Your task to perform on an android device: Go to Reddit.com Image 0: 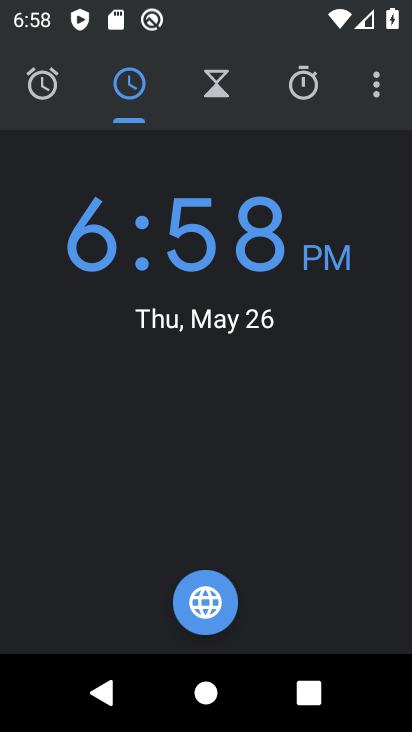
Step 0: press home button
Your task to perform on an android device: Go to Reddit.com Image 1: 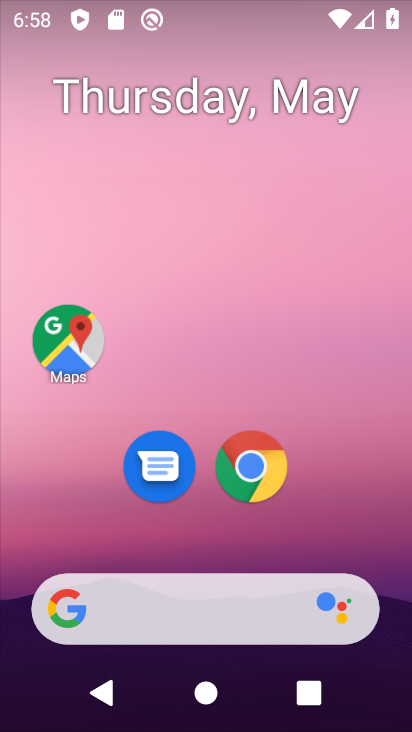
Step 1: click (259, 466)
Your task to perform on an android device: Go to Reddit.com Image 2: 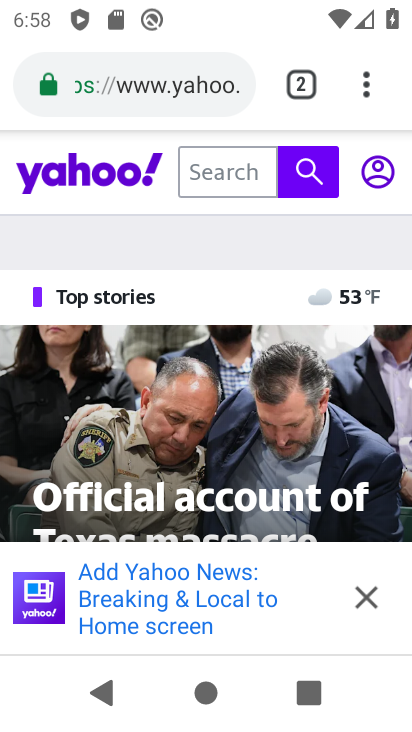
Step 2: click (370, 81)
Your task to perform on an android device: Go to Reddit.com Image 3: 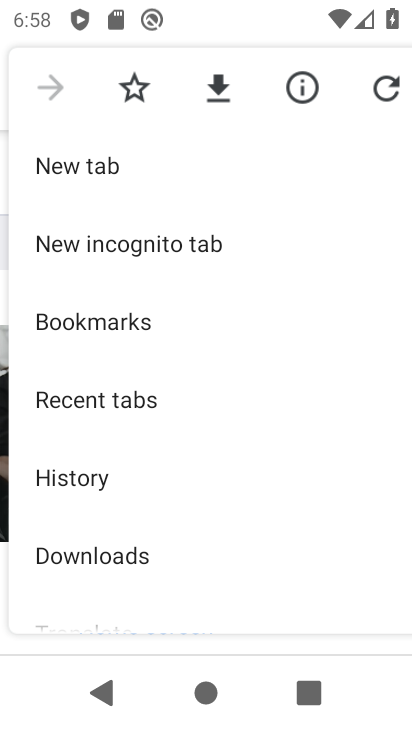
Step 3: click (79, 162)
Your task to perform on an android device: Go to Reddit.com Image 4: 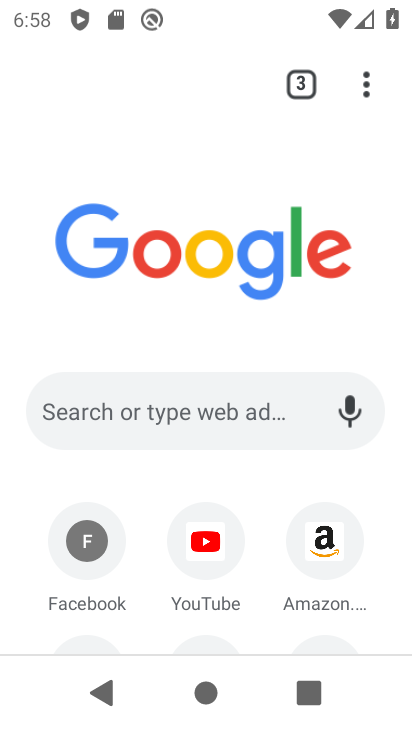
Step 4: click (190, 417)
Your task to perform on an android device: Go to Reddit.com Image 5: 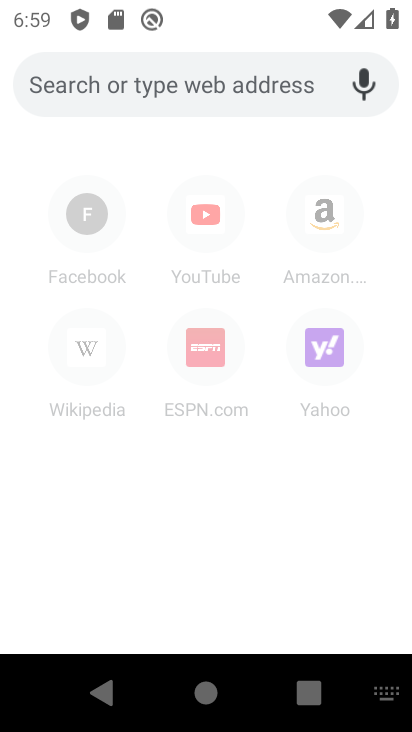
Step 5: type "reddit.com"
Your task to perform on an android device: Go to Reddit.com Image 6: 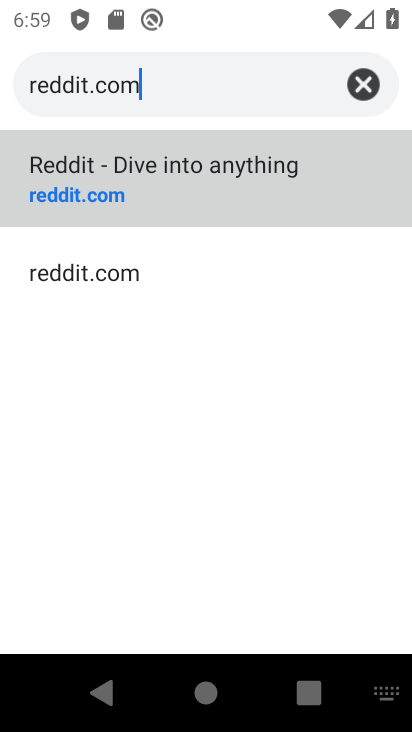
Step 6: click (175, 179)
Your task to perform on an android device: Go to Reddit.com Image 7: 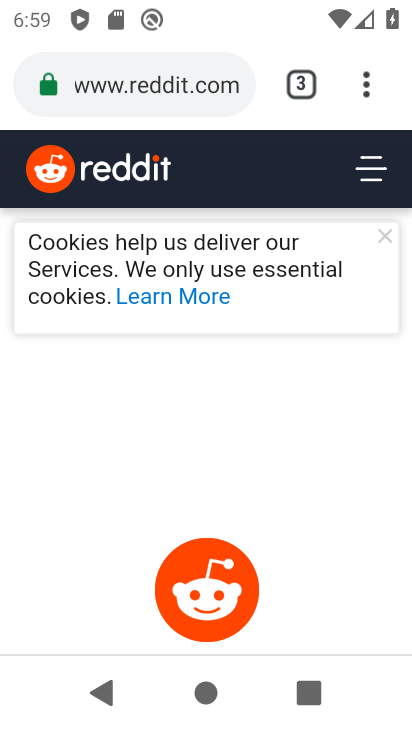
Step 7: task complete